Your task to perform on an android device: turn on bluetooth scan Image 0: 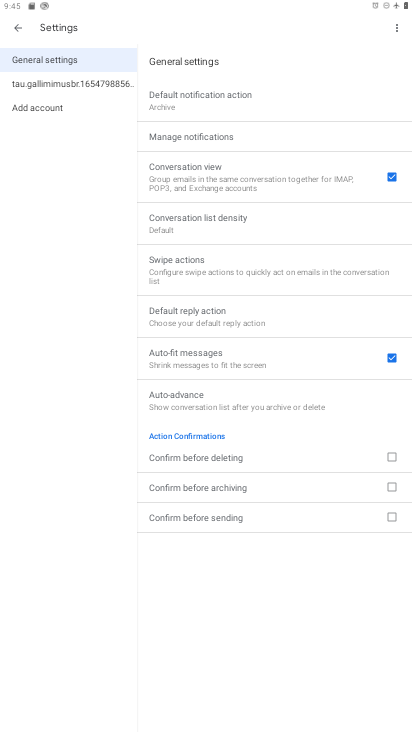
Step 0: press home button
Your task to perform on an android device: turn on bluetooth scan Image 1: 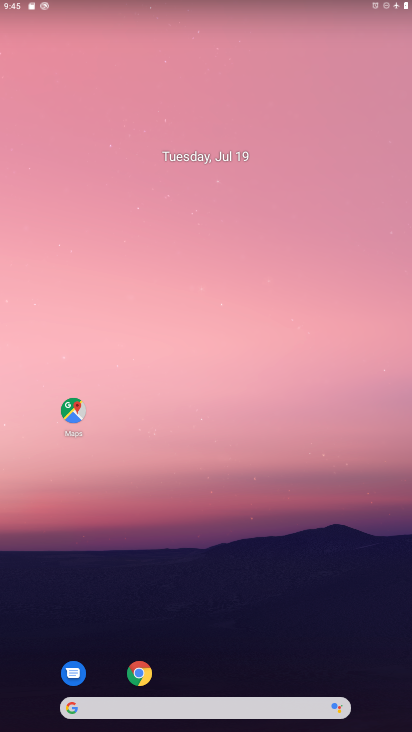
Step 1: drag from (353, 627) to (313, 90)
Your task to perform on an android device: turn on bluetooth scan Image 2: 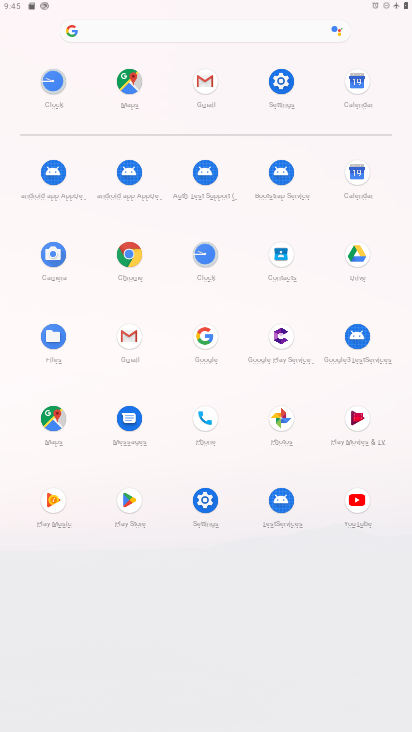
Step 2: click (203, 498)
Your task to perform on an android device: turn on bluetooth scan Image 3: 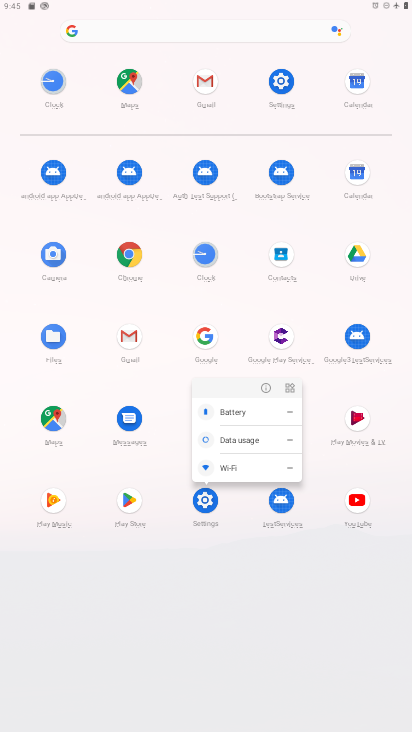
Step 3: click (205, 499)
Your task to perform on an android device: turn on bluetooth scan Image 4: 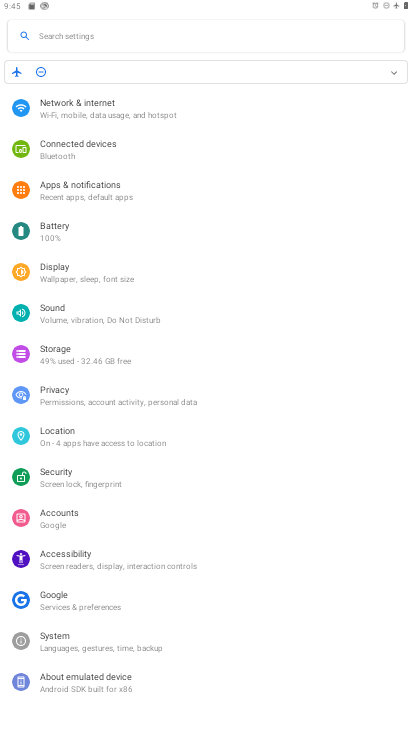
Step 4: click (73, 434)
Your task to perform on an android device: turn on bluetooth scan Image 5: 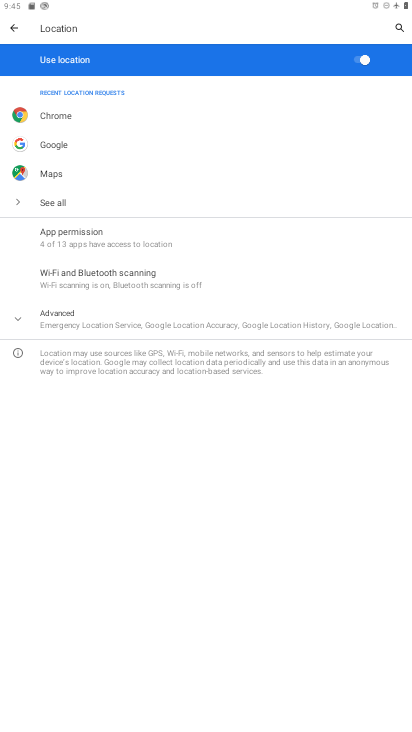
Step 5: click (78, 267)
Your task to perform on an android device: turn on bluetooth scan Image 6: 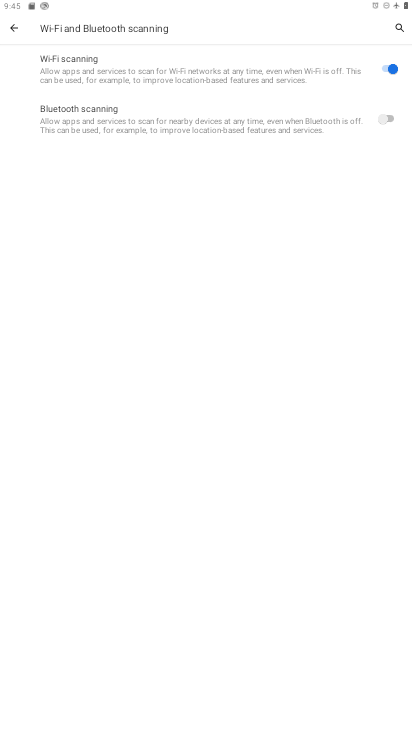
Step 6: click (388, 115)
Your task to perform on an android device: turn on bluetooth scan Image 7: 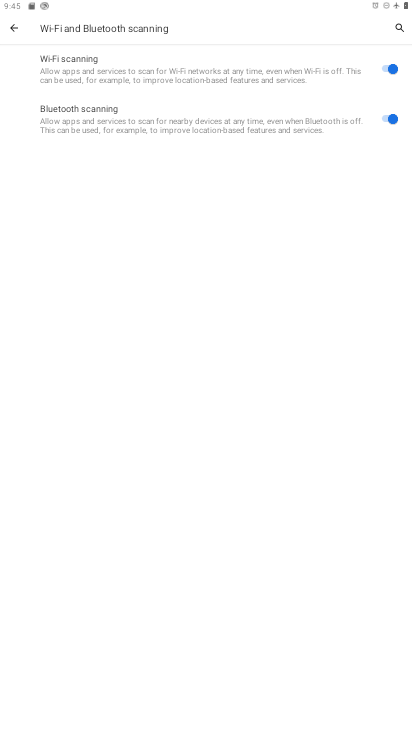
Step 7: task complete